Your task to perform on an android device: change alarm snooze length Image 0: 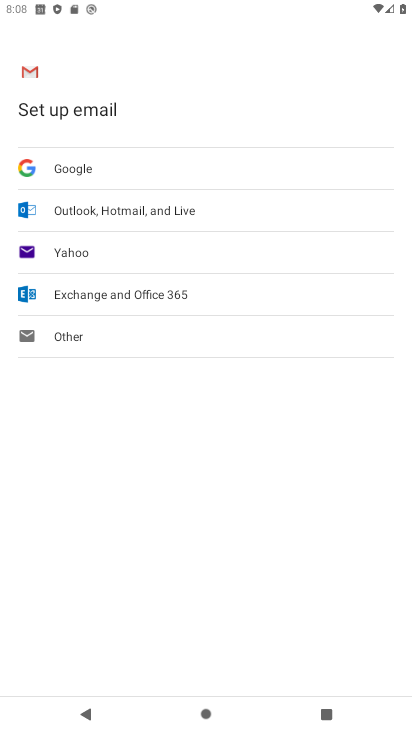
Step 0: press home button
Your task to perform on an android device: change alarm snooze length Image 1: 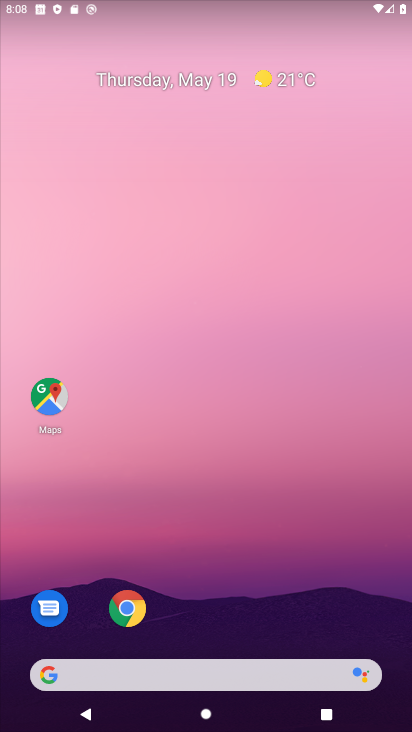
Step 1: drag from (240, 555) to (110, 94)
Your task to perform on an android device: change alarm snooze length Image 2: 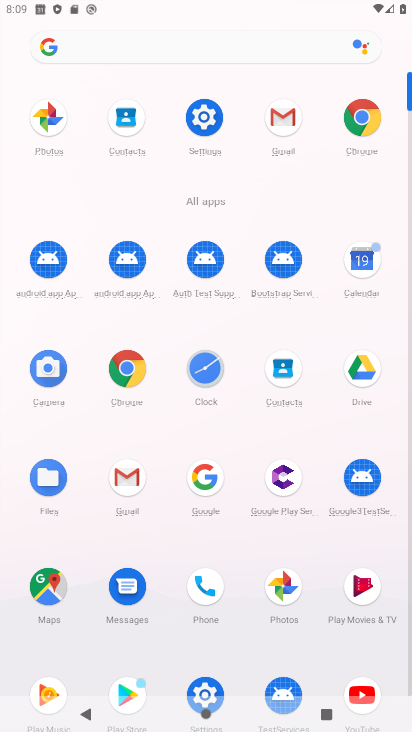
Step 2: click (209, 365)
Your task to perform on an android device: change alarm snooze length Image 3: 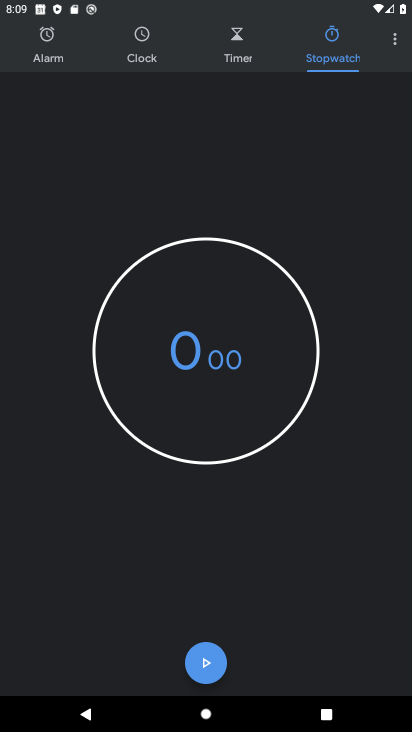
Step 3: click (395, 40)
Your task to perform on an android device: change alarm snooze length Image 4: 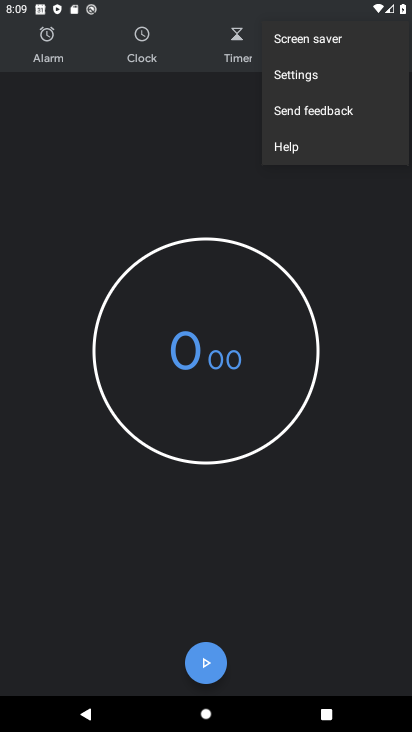
Step 4: click (302, 71)
Your task to perform on an android device: change alarm snooze length Image 5: 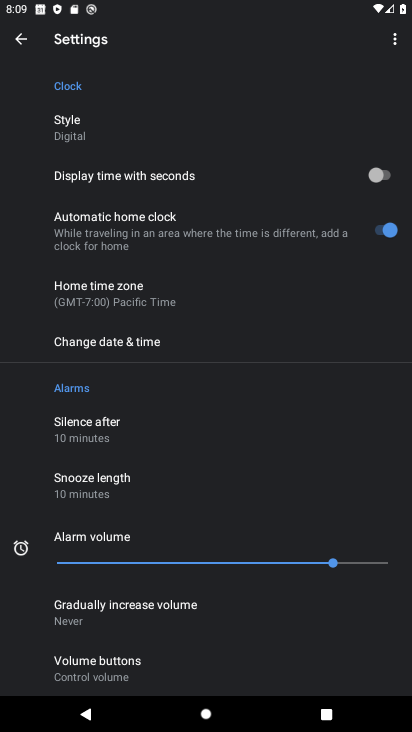
Step 5: click (114, 483)
Your task to perform on an android device: change alarm snooze length Image 6: 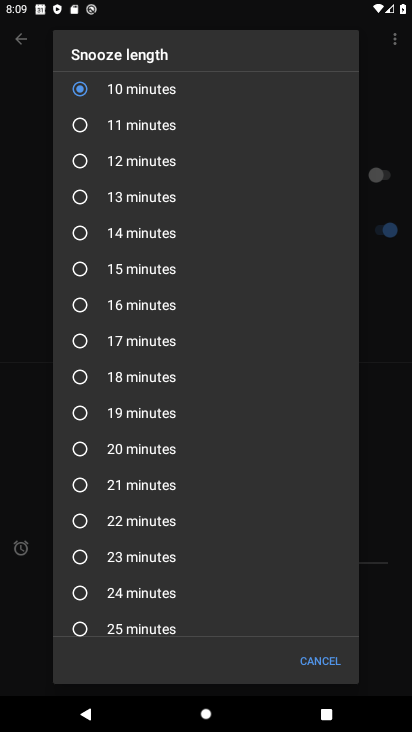
Step 6: click (85, 121)
Your task to perform on an android device: change alarm snooze length Image 7: 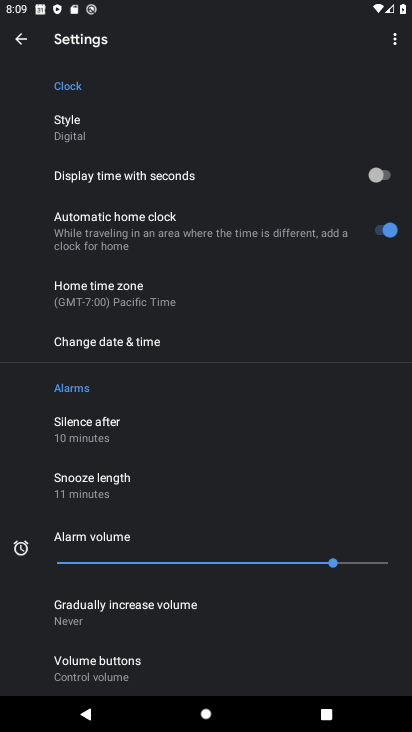
Step 7: task complete